Your task to perform on an android device: Go to Google Image 0: 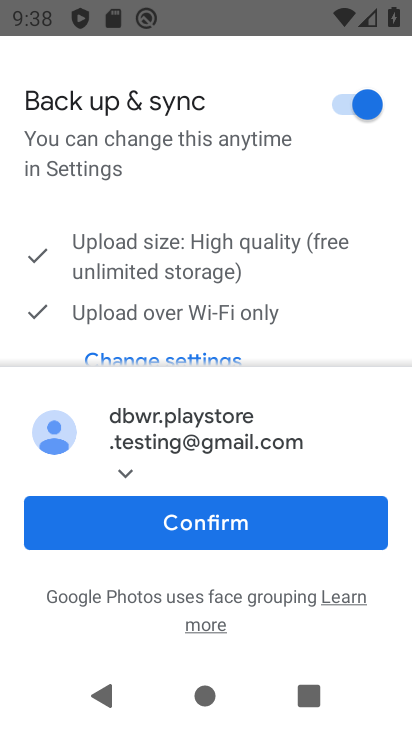
Step 0: press home button
Your task to perform on an android device: Go to Google Image 1: 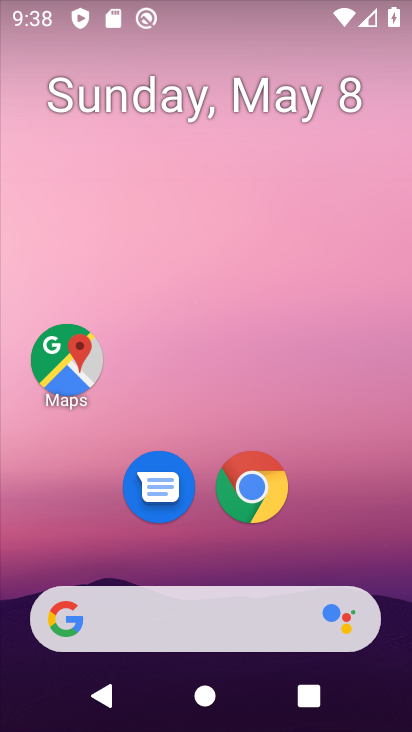
Step 1: drag from (360, 563) to (390, 73)
Your task to perform on an android device: Go to Google Image 2: 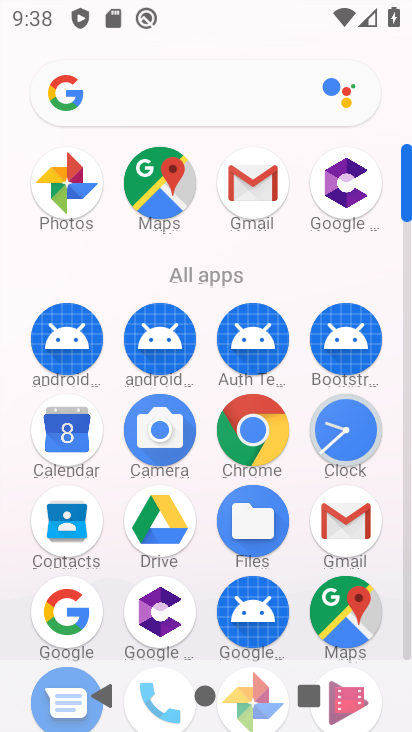
Step 2: click (67, 612)
Your task to perform on an android device: Go to Google Image 3: 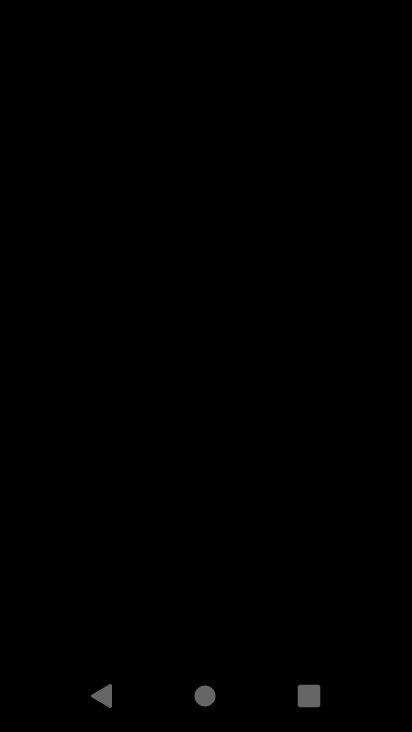
Step 3: task complete